Your task to perform on an android device: visit the assistant section in the google photos Image 0: 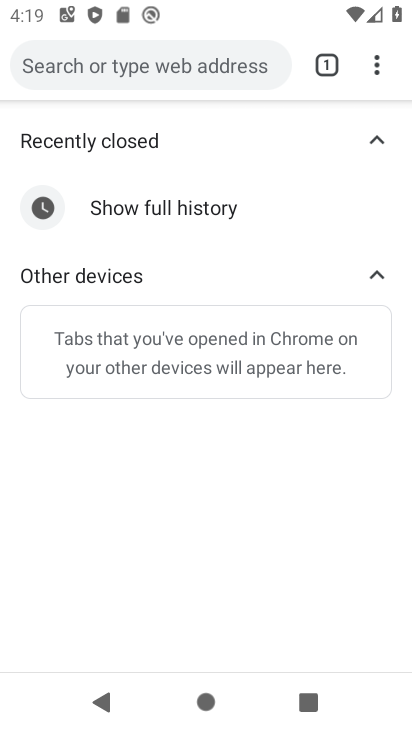
Step 0: press back button
Your task to perform on an android device: visit the assistant section in the google photos Image 1: 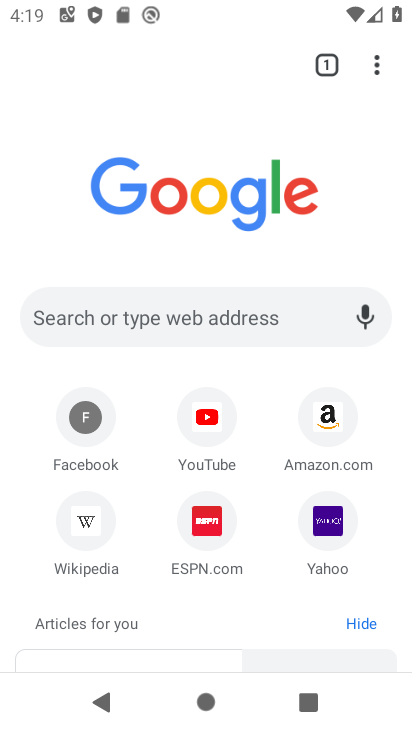
Step 1: press home button
Your task to perform on an android device: visit the assistant section in the google photos Image 2: 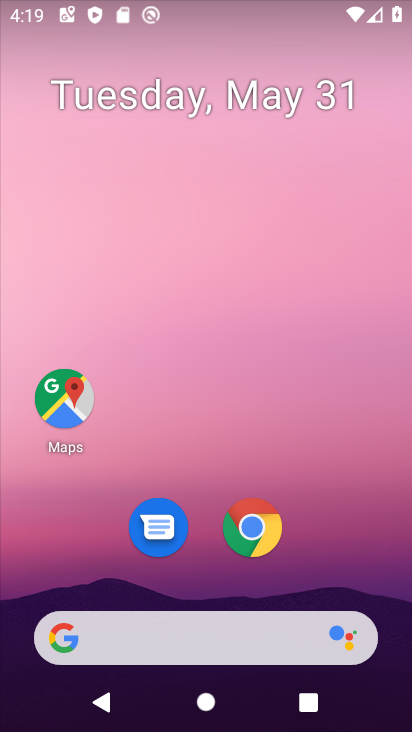
Step 2: drag from (342, 539) to (202, 32)
Your task to perform on an android device: visit the assistant section in the google photos Image 3: 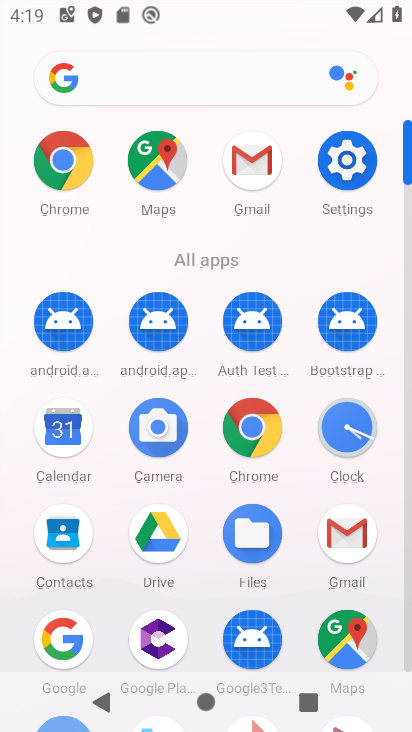
Step 3: drag from (12, 603) to (24, 287)
Your task to perform on an android device: visit the assistant section in the google photos Image 4: 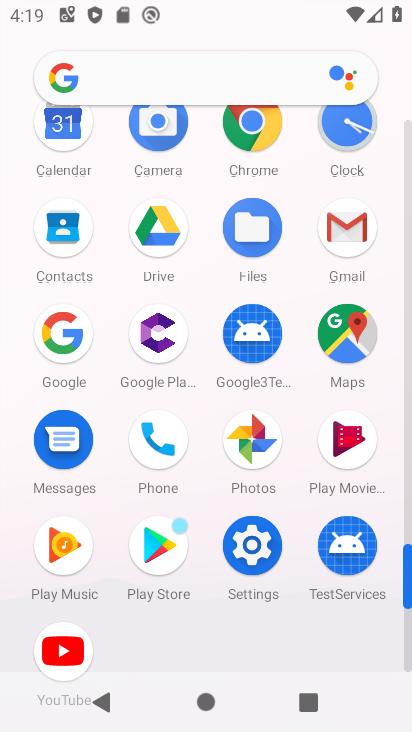
Step 4: click (248, 436)
Your task to perform on an android device: visit the assistant section in the google photos Image 5: 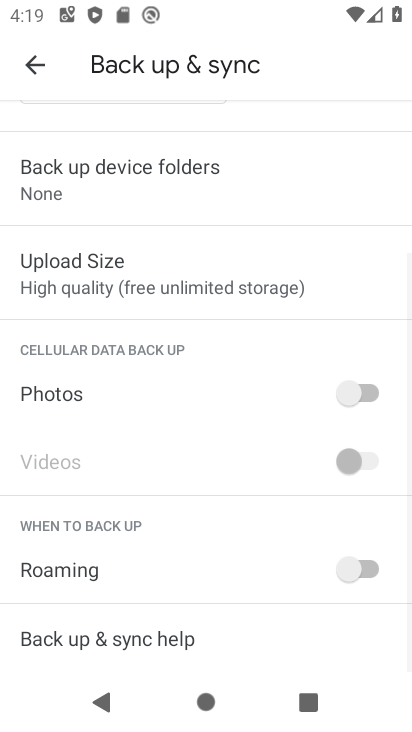
Step 5: click (31, 62)
Your task to perform on an android device: visit the assistant section in the google photos Image 6: 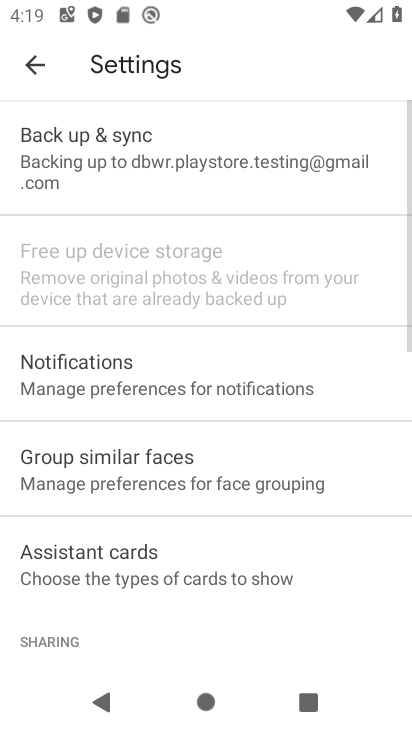
Step 6: click (31, 62)
Your task to perform on an android device: visit the assistant section in the google photos Image 7: 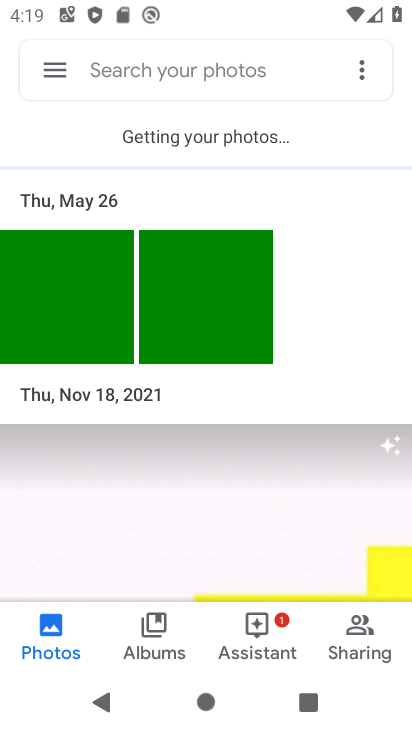
Step 7: click (263, 633)
Your task to perform on an android device: visit the assistant section in the google photos Image 8: 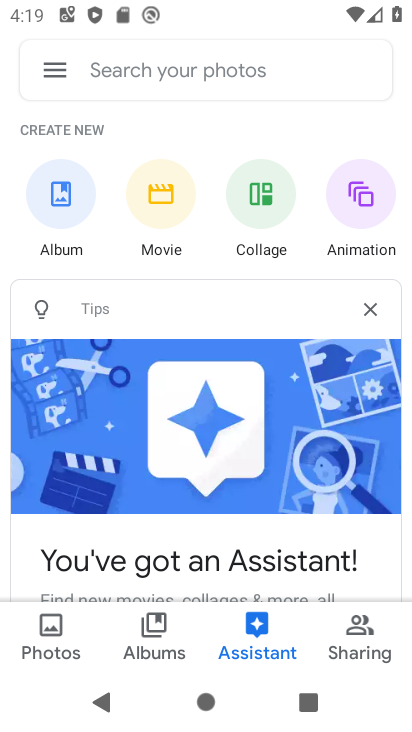
Step 8: task complete